Your task to perform on an android device: Toggle the flashlight Image 0: 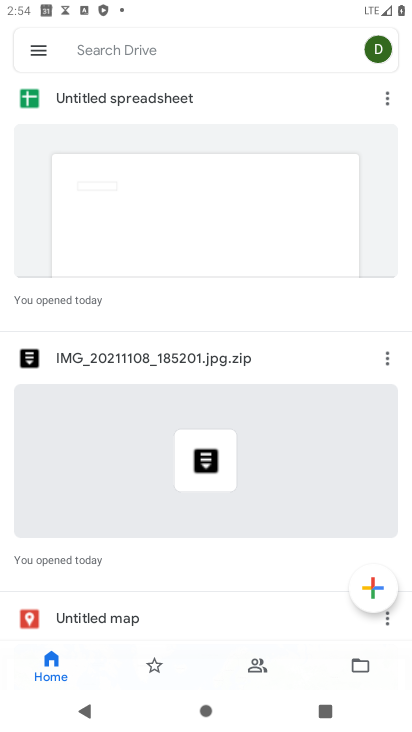
Step 0: press home button
Your task to perform on an android device: Toggle the flashlight Image 1: 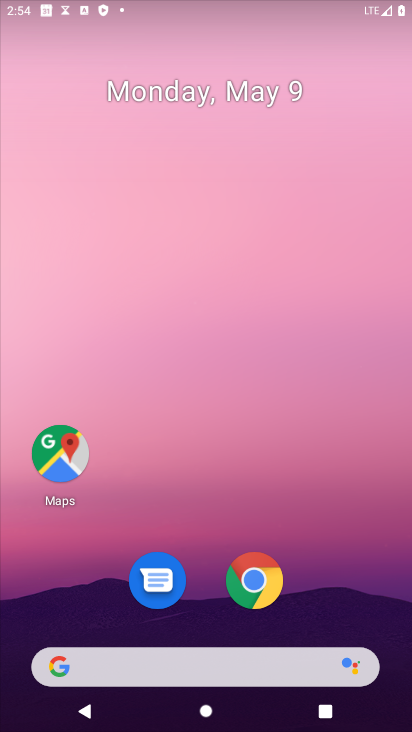
Step 1: task complete